Your task to perform on an android device: turn off airplane mode Image 0: 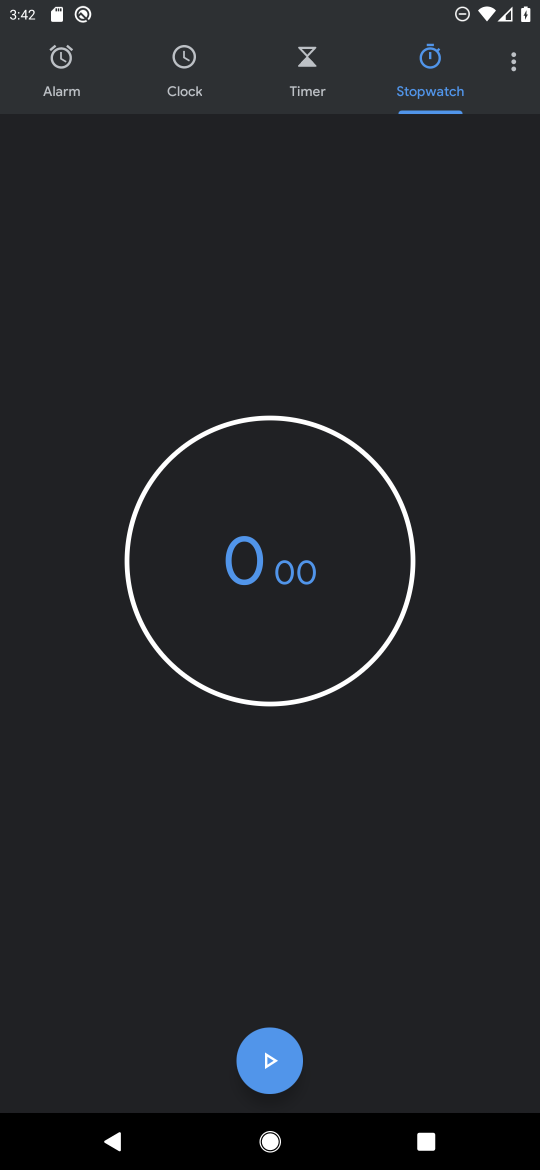
Step 0: press home button
Your task to perform on an android device: turn off airplane mode Image 1: 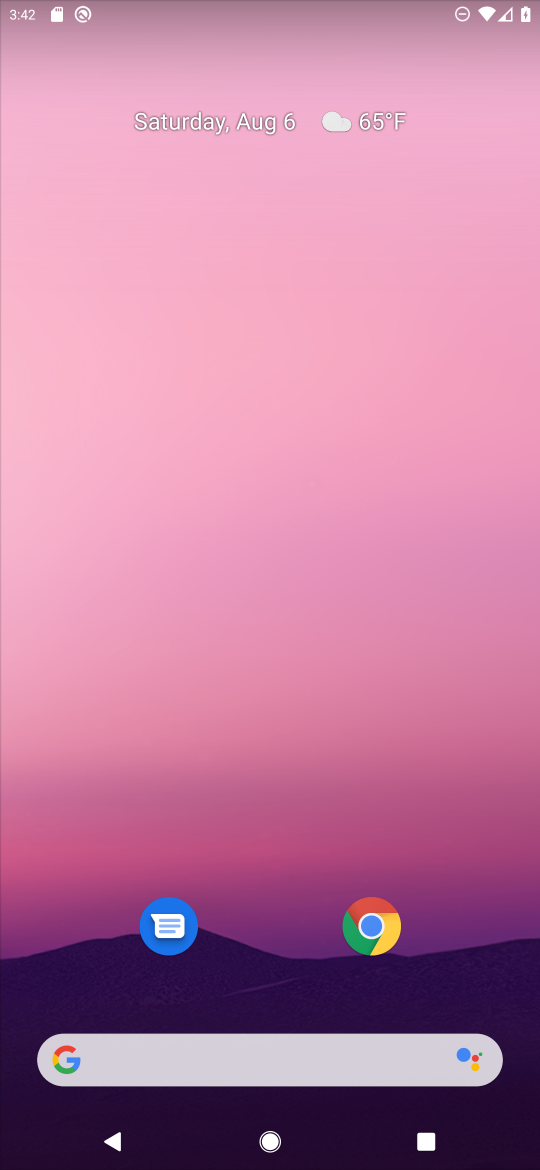
Step 1: drag from (237, 922) to (238, 224)
Your task to perform on an android device: turn off airplane mode Image 2: 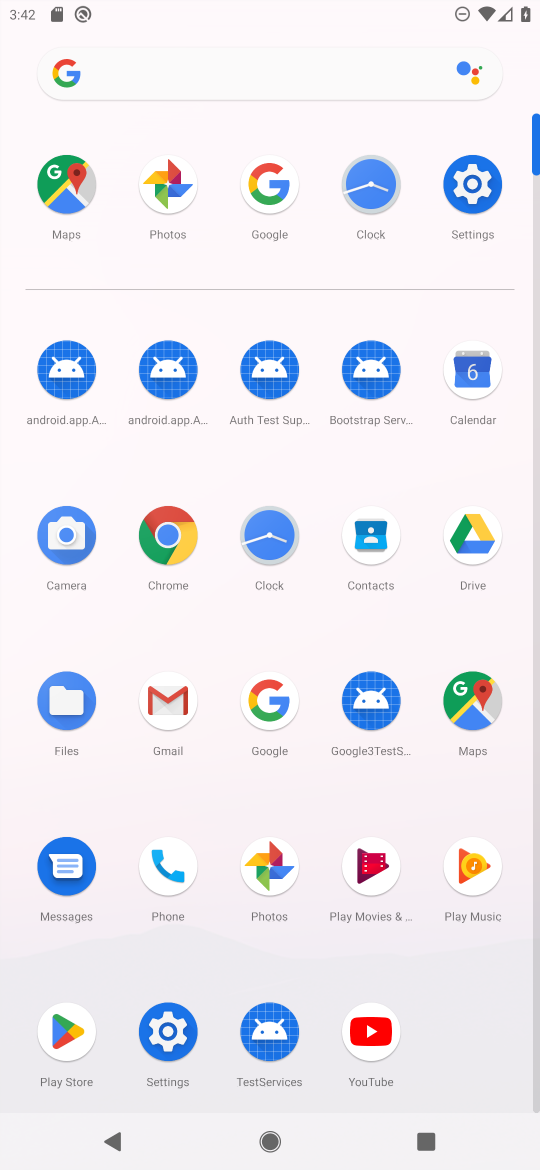
Step 2: click (170, 1001)
Your task to perform on an android device: turn off airplane mode Image 3: 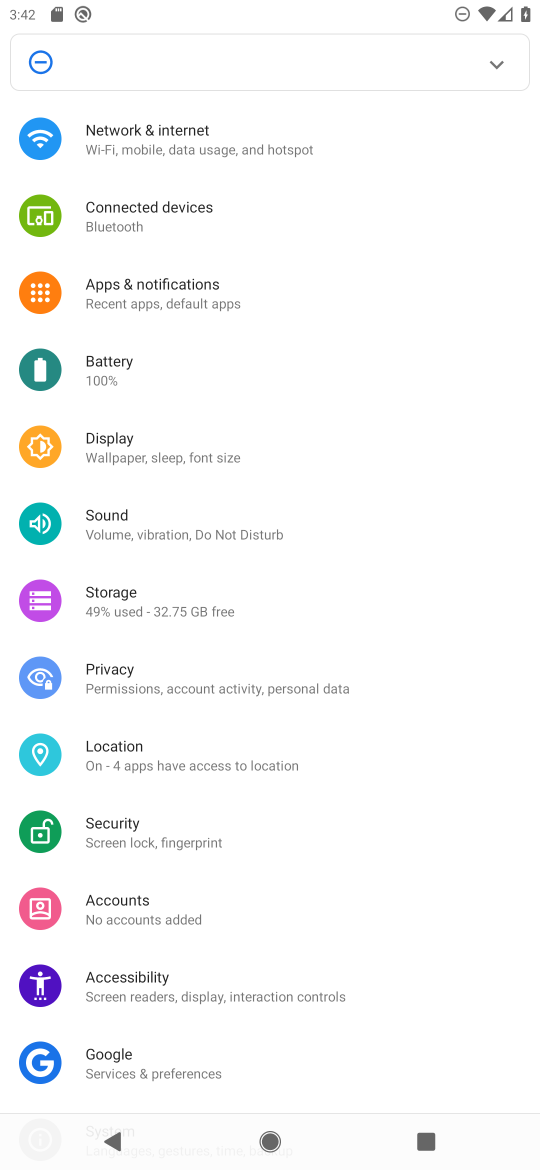
Step 3: click (123, 173)
Your task to perform on an android device: turn off airplane mode Image 4: 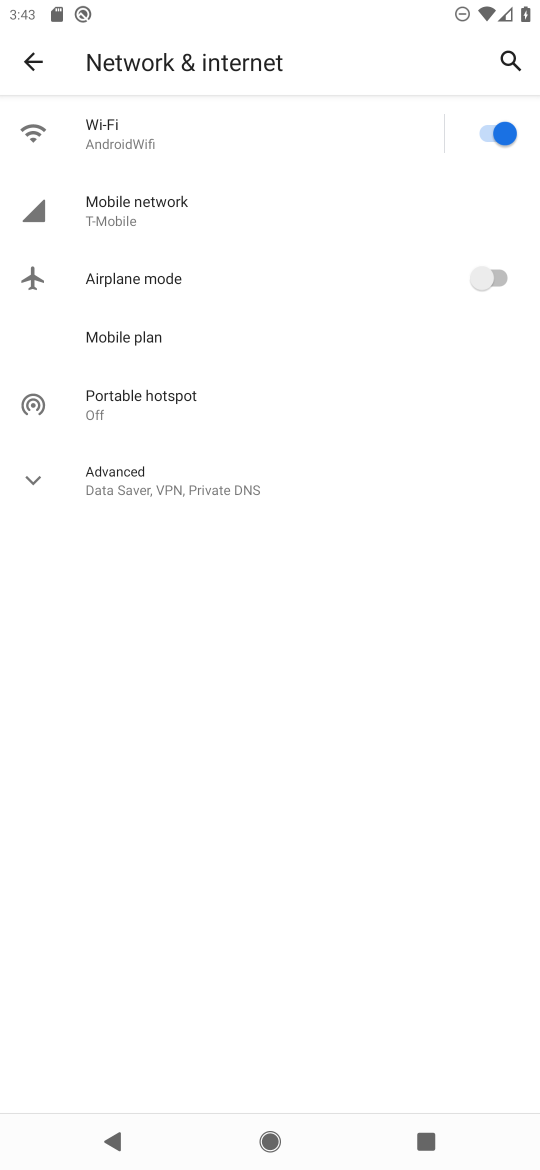
Step 4: task complete